Your task to perform on an android device: Go to eBay Image 0: 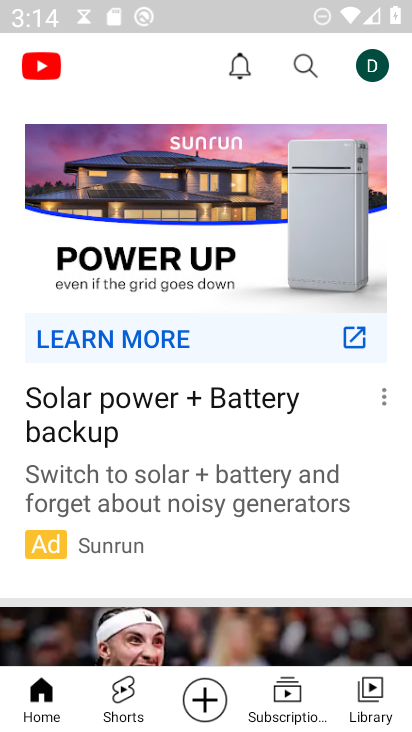
Step 0: press back button
Your task to perform on an android device: Go to eBay Image 1: 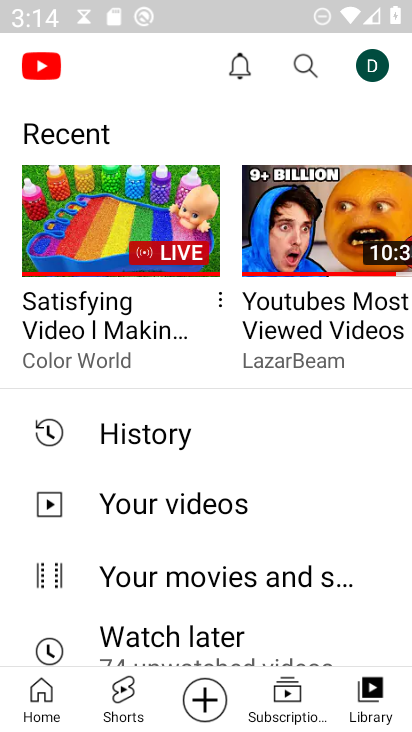
Step 1: press home button
Your task to perform on an android device: Go to eBay Image 2: 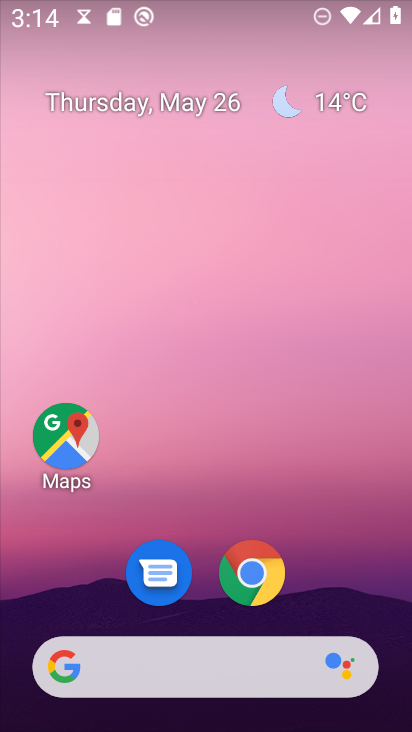
Step 2: drag from (323, 655) to (216, 105)
Your task to perform on an android device: Go to eBay Image 3: 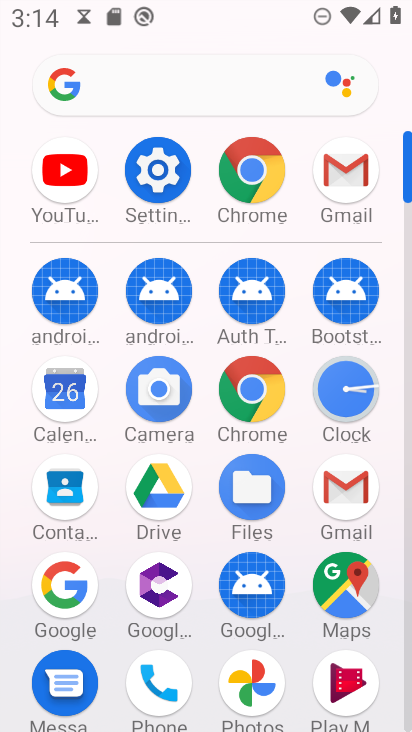
Step 3: click (252, 168)
Your task to perform on an android device: Go to eBay Image 4: 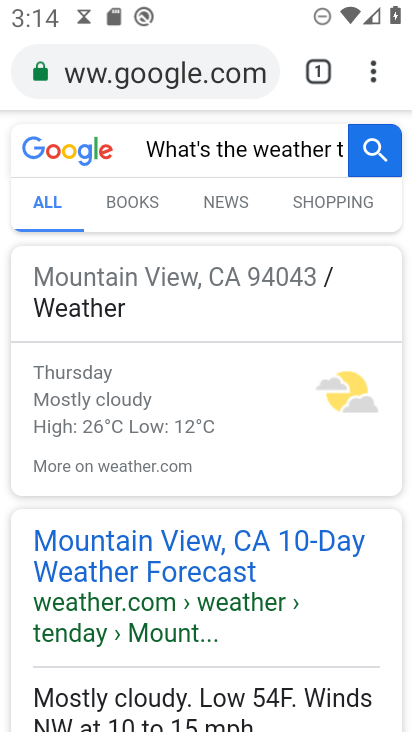
Step 4: click (166, 66)
Your task to perform on an android device: Go to eBay Image 5: 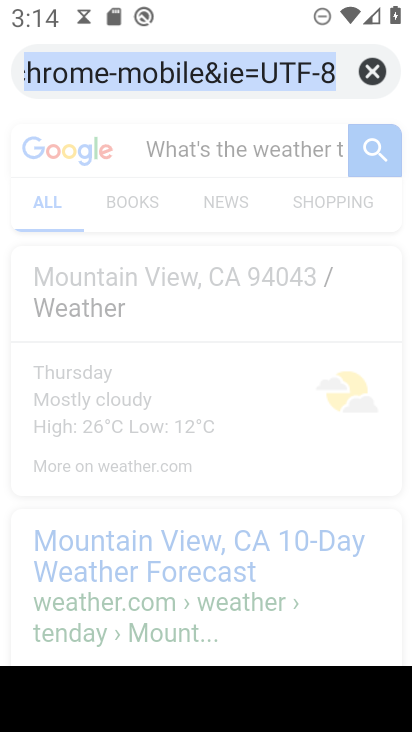
Step 5: click (370, 68)
Your task to perform on an android device: Go to eBay Image 6: 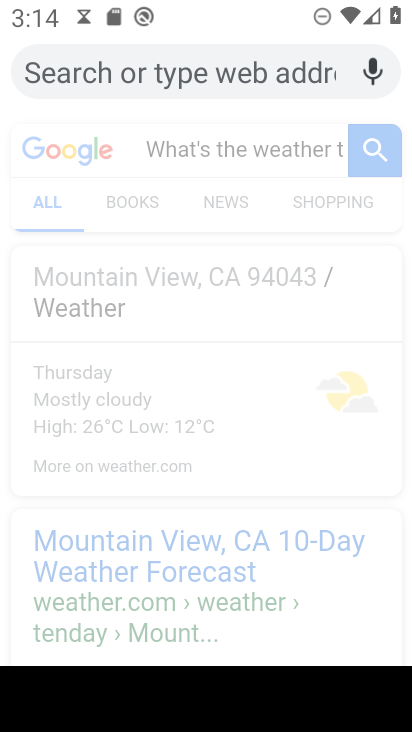
Step 6: type " eBay"
Your task to perform on an android device: Go to eBay Image 7: 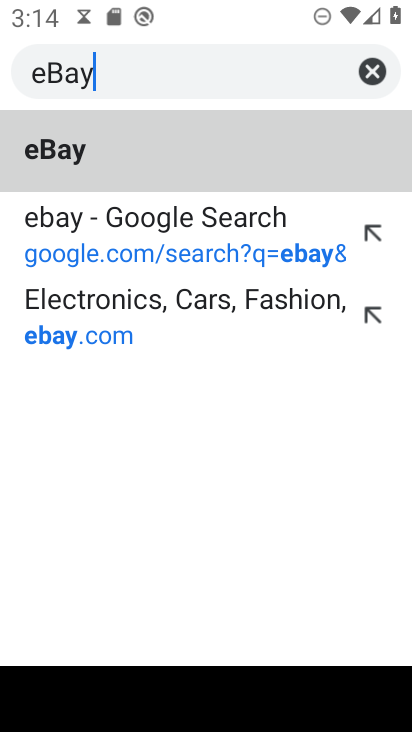
Step 7: click (94, 293)
Your task to perform on an android device: Go to eBay Image 8: 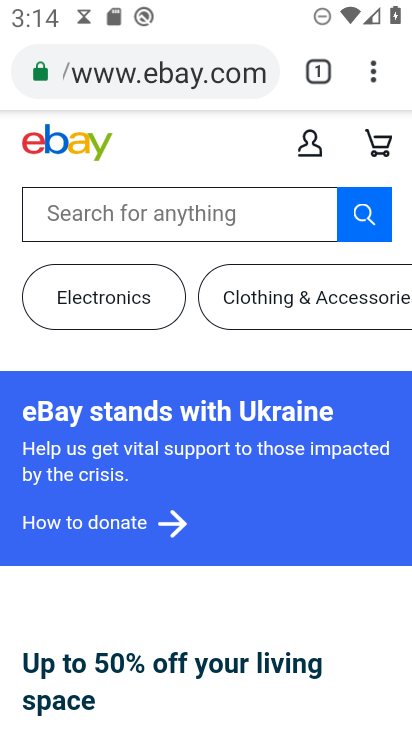
Step 8: task complete